Your task to perform on an android device: What's on my calendar today? Image 0: 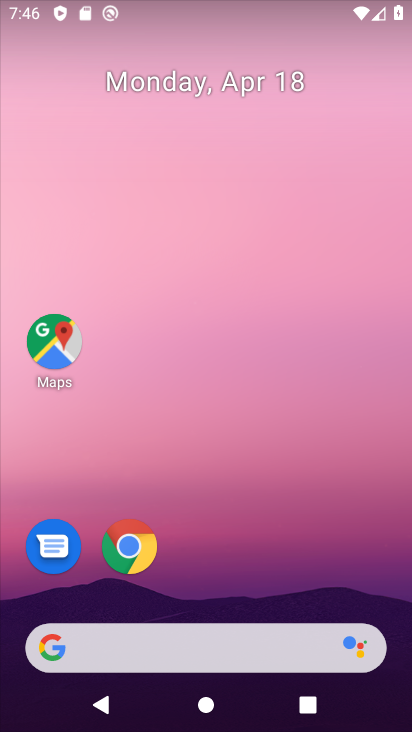
Step 0: drag from (255, 530) to (257, 367)
Your task to perform on an android device: What's on my calendar today? Image 1: 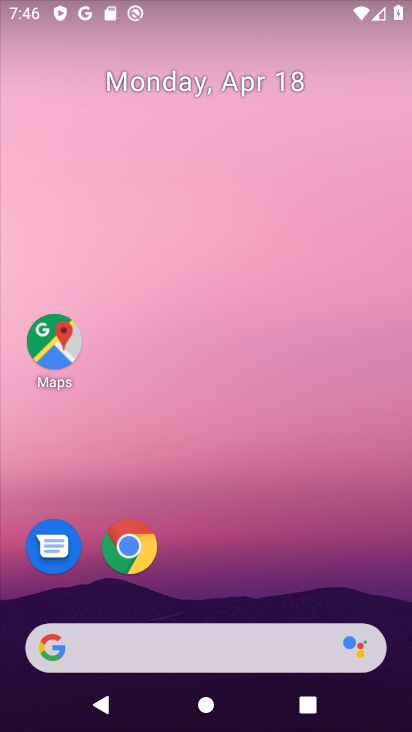
Step 1: drag from (252, 507) to (241, 38)
Your task to perform on an android device: What's on my calendar today? Image 2: 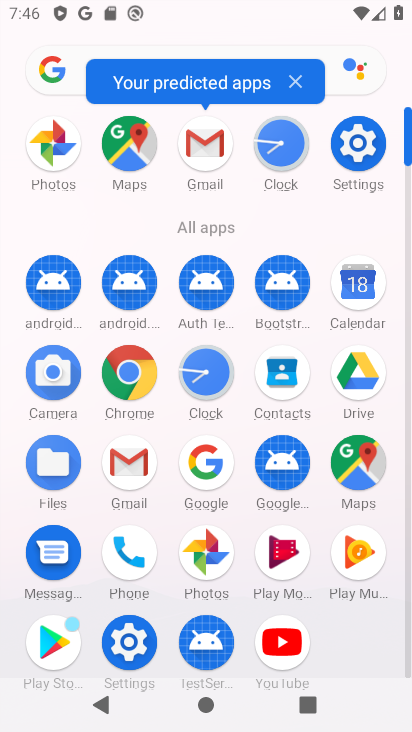
Step 2: click (362, 291)
Your task to perform on an android device: What's on my calendar today? Image 3: 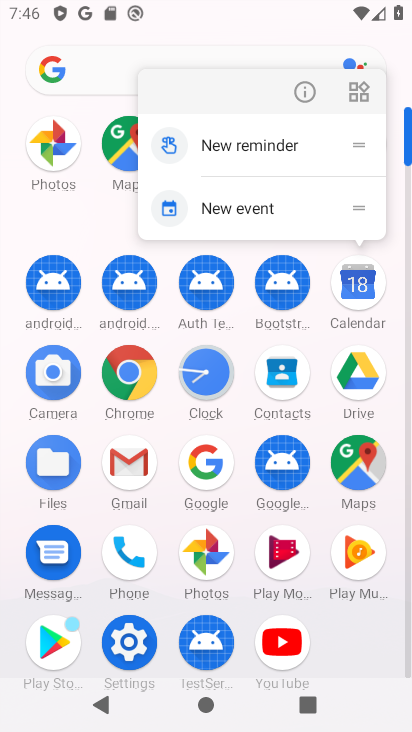
Step 3: click (361, 303)
Your task to perform on an android device: What's on my calendar today? Image 4: 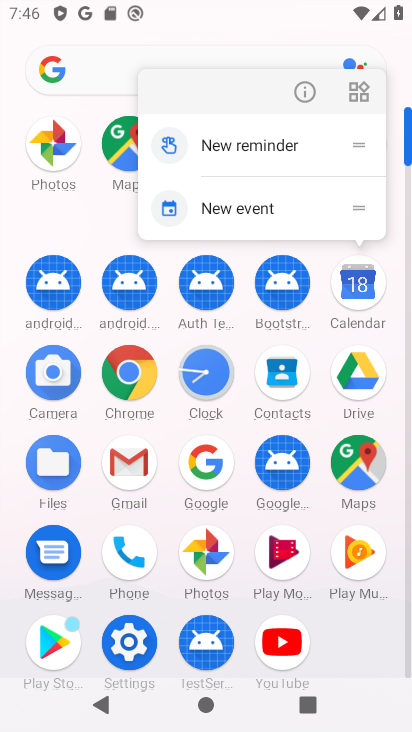
Step 4: click (364, 299)
Your task to perform on an android device: What's on my calendar today? Image 5: 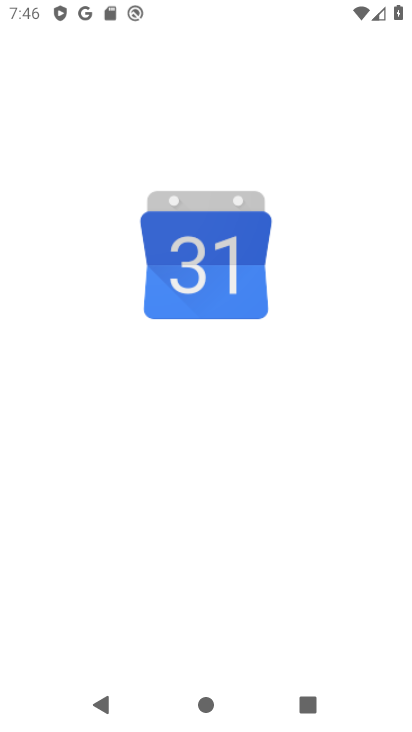
Step 5: click (356, 291)
Your task to perform on an android device: What's on my calendar today? Image 6: 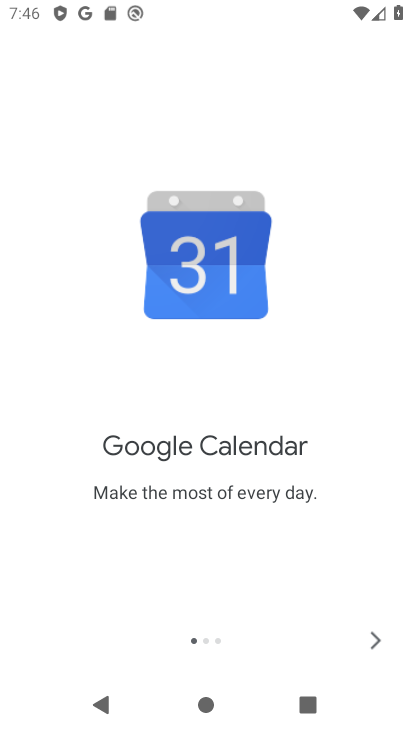
Step 6: click (375, 642)
Your task to perform on an android device: What's on my calendar today? Image 7: 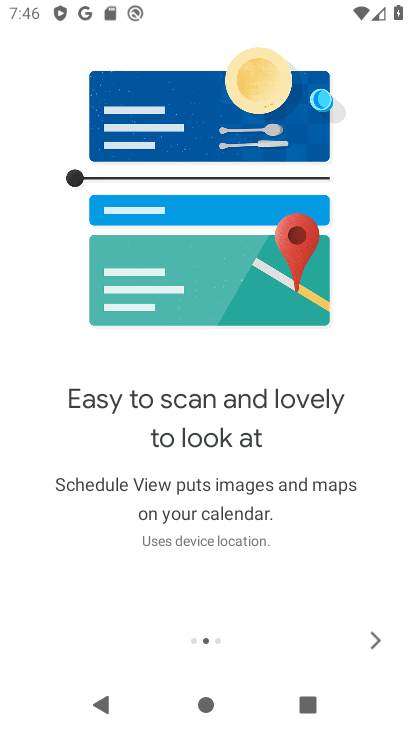
Step 7: click (373, 646)
Your task to perform on an android device: What's on my calendar today? Image 8: 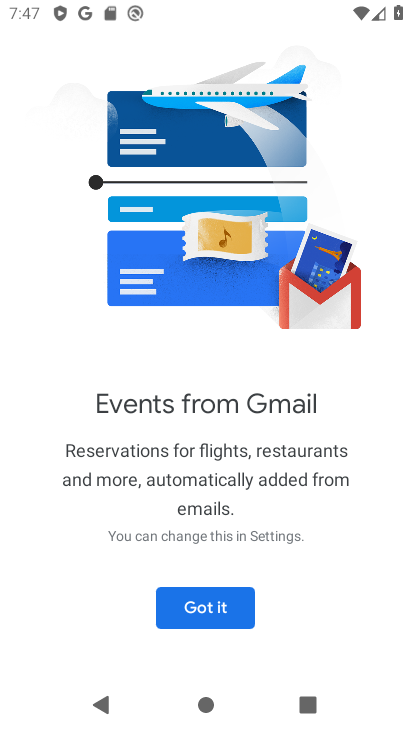
Step 8: click (215, 620)
Your task to perform on an android device: What's on my calendar today? Image 9: 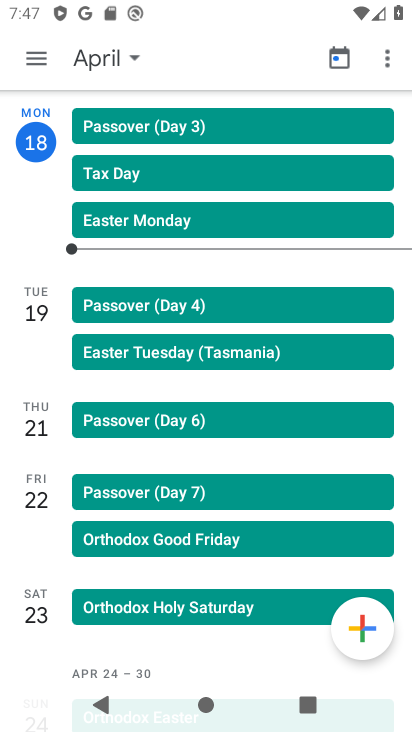
Step 9: click (87, 39)
Your task to perform on an android device: What's on my calendar today? Image 10: 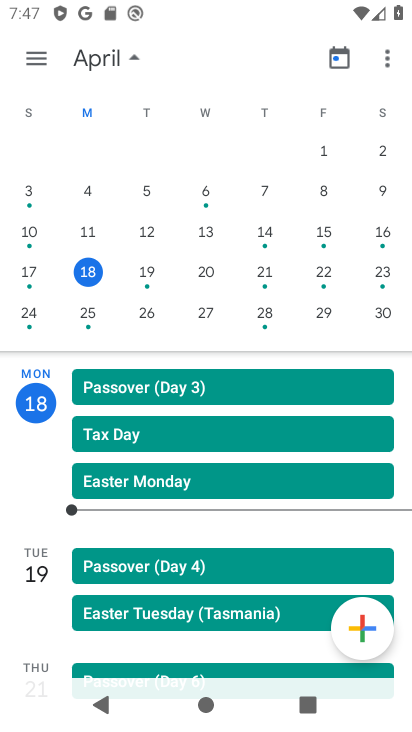
Step 10: click (89, 278)
Your task to perform on an android device: What's on my calendar today? Image 11: 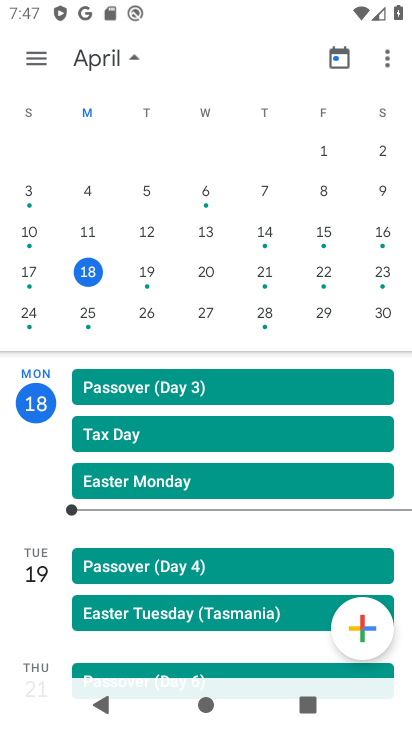
Step 11: click (138, 390)
Your task to perform on an android device: What's on my calendar today? Image 12: 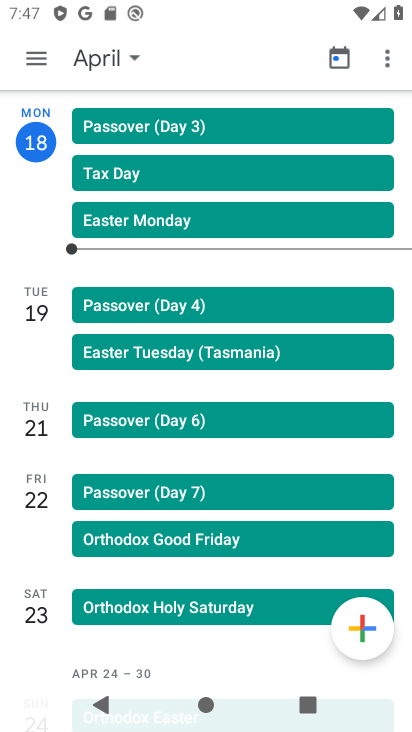
Step 12: task complete